Your task to perform on an android device: turn off location Image 0: 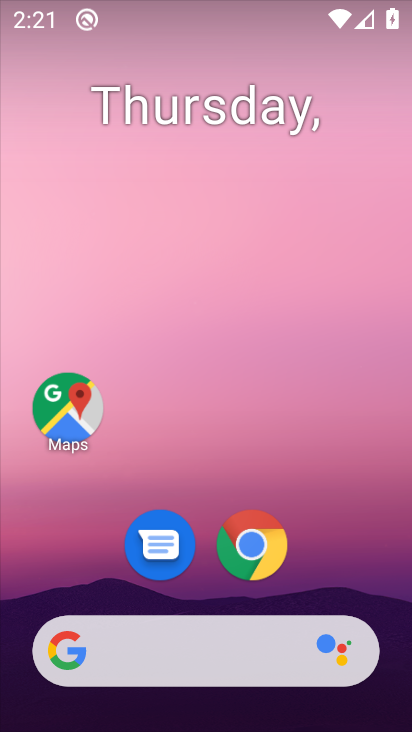
Step 0: drag from (251, 614) to (312, 163)
Your task to perform on an android device: turn off location Image 1: 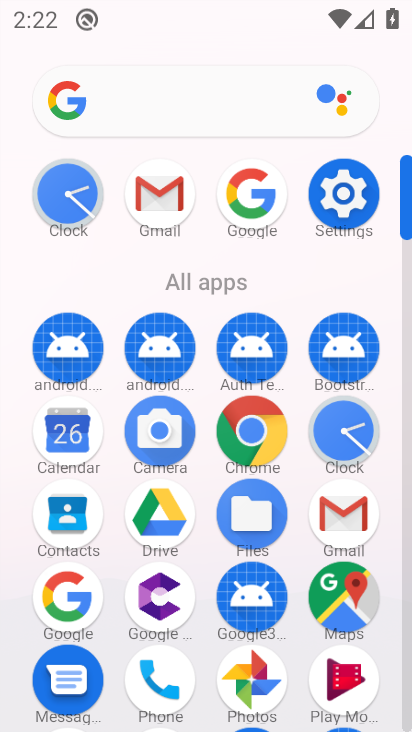
Step 1: click (344, 187)
Your task to perform on an android device: turn off location Image 2: 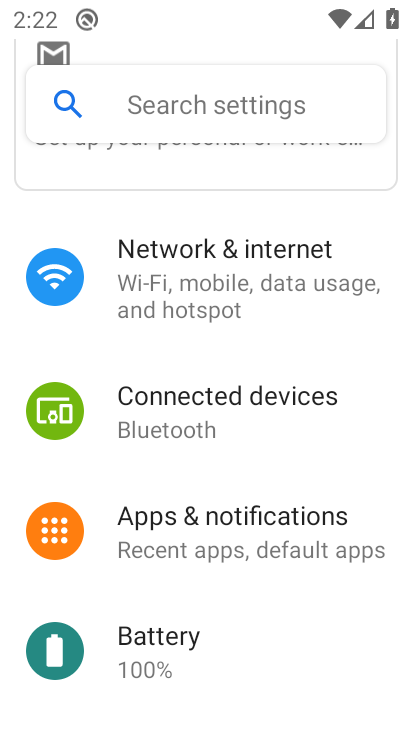
Step 2: drag from (197, 670) to (303, 156)
Your task to perform on an android device: turn off location Image 3: 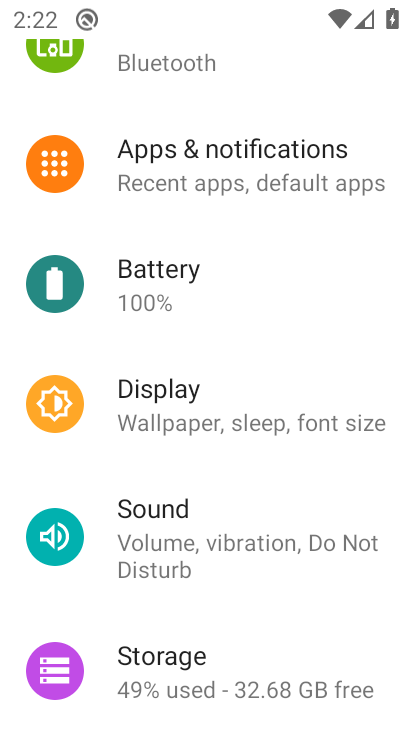
Step 3: drag from (177, 692) to (295, 237)
Your task to perform on an android device: turn off location Image 4: 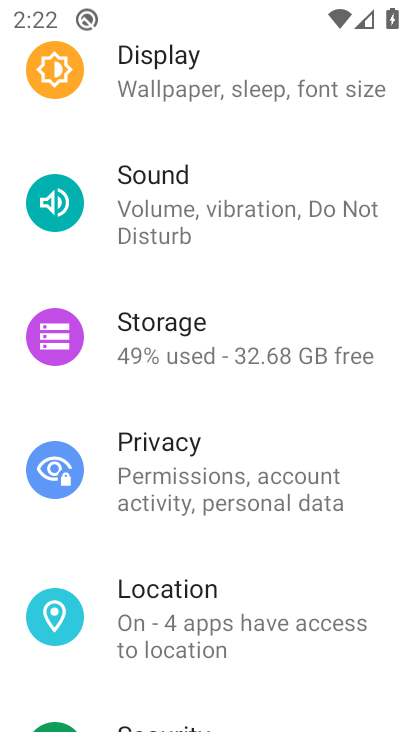
Step 4: click (196, 614)
Your task to perform on an android device: turn off location Image 5: 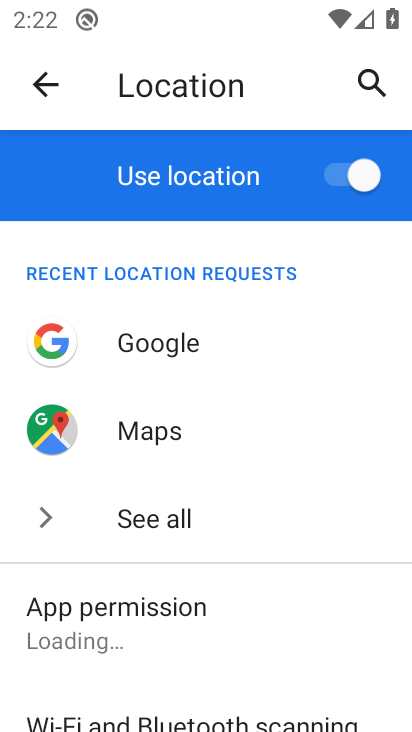
Step 5: click (337, 177)
Your task to perform on an android device: turn off location Image 6: 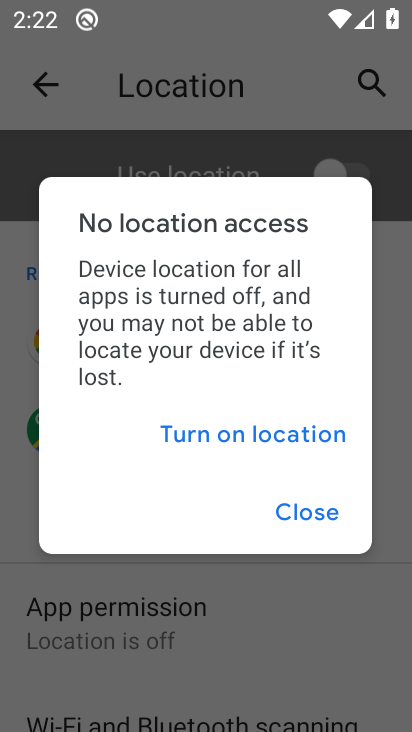
Step 6: task complete